Your task to perform on an android device: turn off translation in the chrome app Image 0: 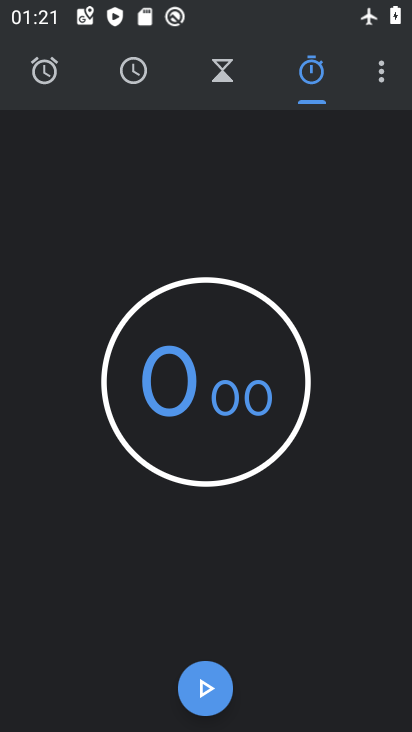
Step 0: press home button
Your task to perform on an android device: turn off translation in the chrome app Image 1: 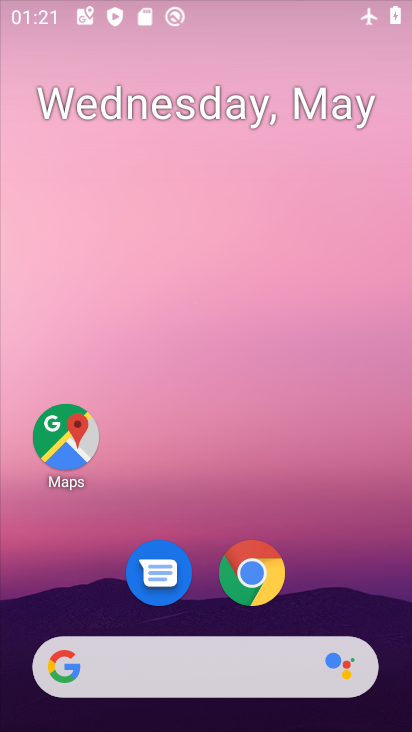
Step 1: drag from (289, 598) to (302, 292)
Your task to perform on an android device: turn off translation in the chrome app Image 2: 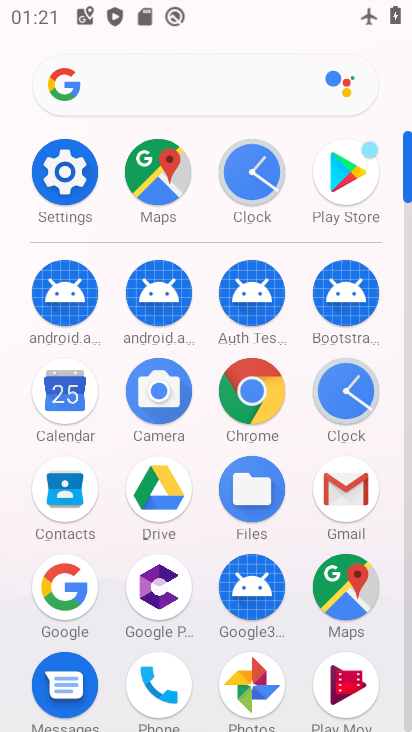
Step 2: click (264, 359)
Your task to perform on an android device: turn off translation in the chrome app Image 3: 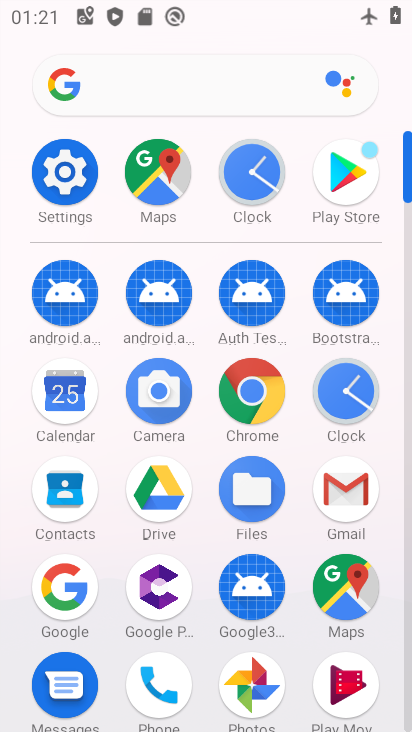
Step 3: click (262, 375)
Your task to perform on an android device: turn off translation in the chrome app Image 4: 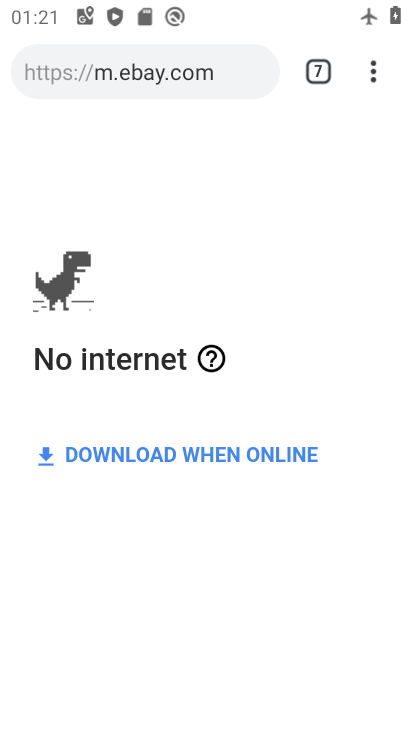
Step 4: click (368, 65)
Your task to perform on an android device: turn off translation in the chrome app Image 5: 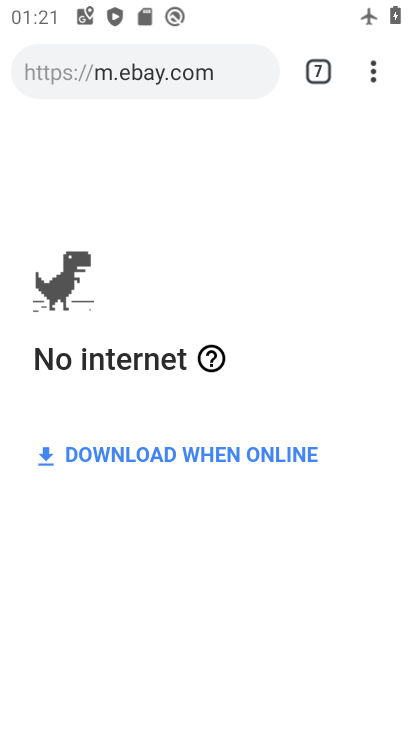
Step 5: click (351, 72)
Your task to perform on an android device: turn off translation in the chrome app Image 6: 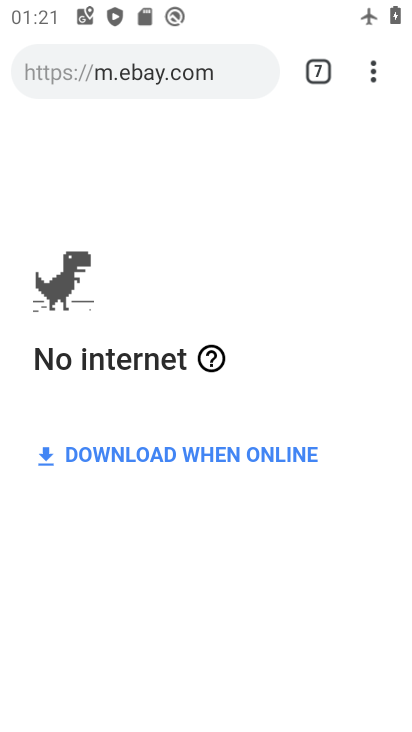
Step 6: click (380, 64)
Your task to perform on an android device: turn off translation in the chrome app Image 7: 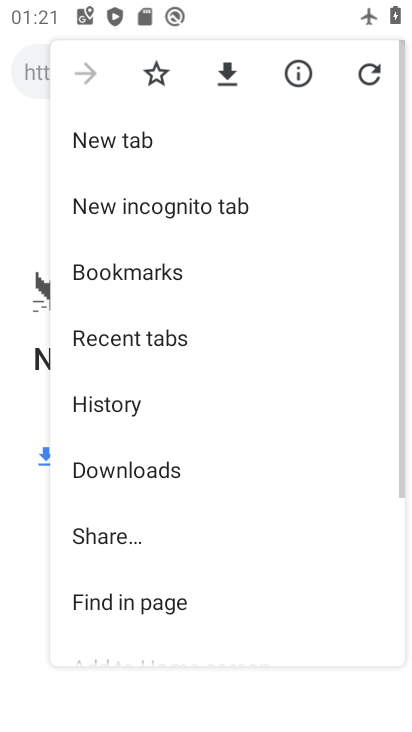
Step 7: drag from (230, 484) to (238, 276)
Your task to perform on an android device: turn off translation in the chrome app Image 8: 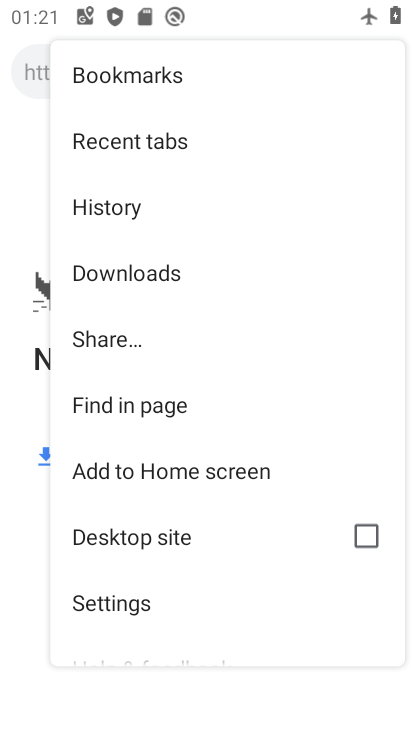
Step 8: click (157, 608)
Your task to perform on an android device: turn off translation in the chrome app Image 9: 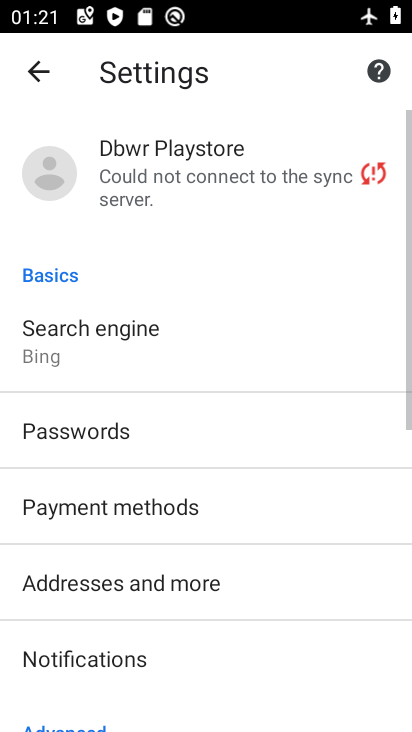
Step 9: drag from (175, 596) to (288, 261)
Your task to perform on an android device: turn off translation in the chrome app Image 10: 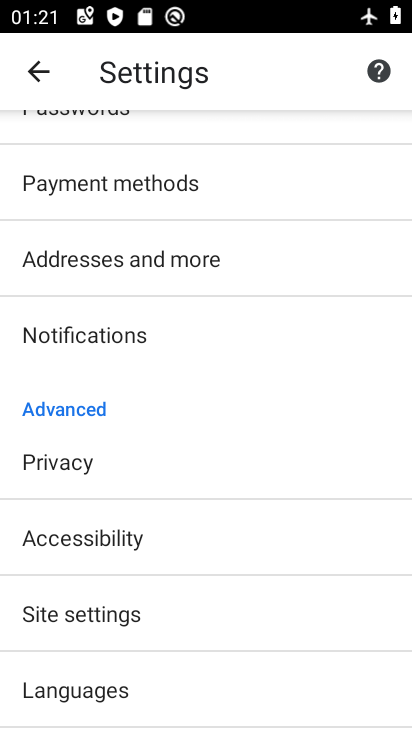
Step 10: drag from (187, 675) to (263, 282)
Your task to perform on an android device: turn off translation in the chrome app Image 11: 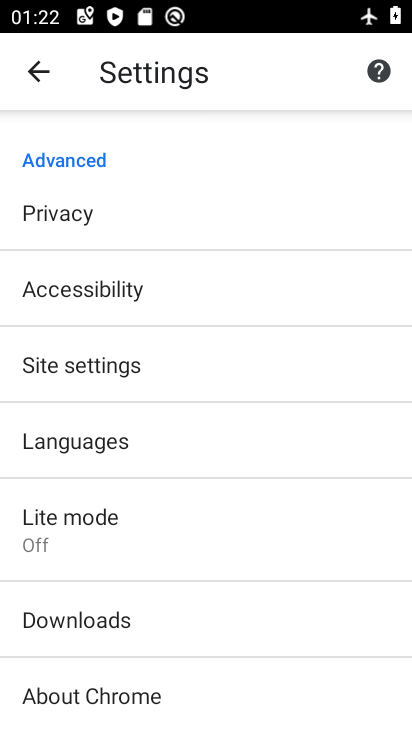
Step 11: click (124, 444)
Your task to perform on an android device: turn off translation in the chrome app Image 12: 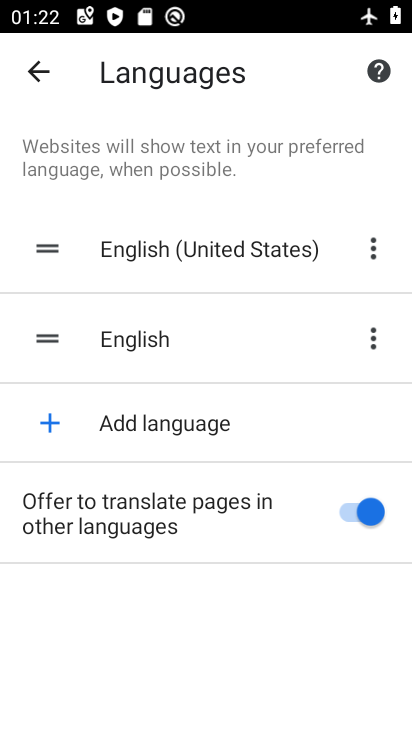
Step 12: click (343, 500)
Your task to perform on an android device: turn off translation in the chrome app Image 13: 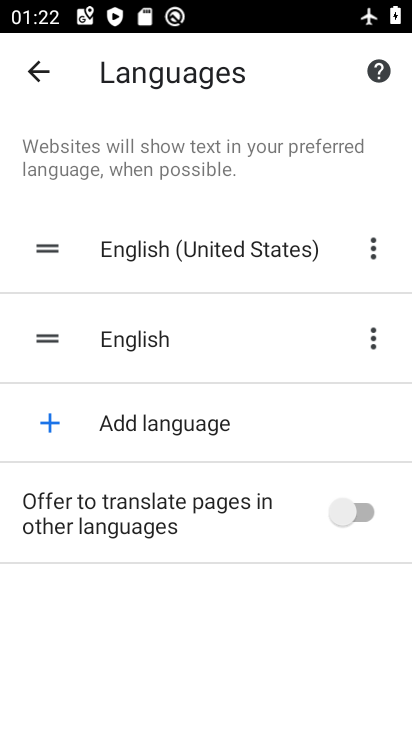
Step 13: task complete